Your task to perform on an android device: allow cookies in the chrome app Image 0: 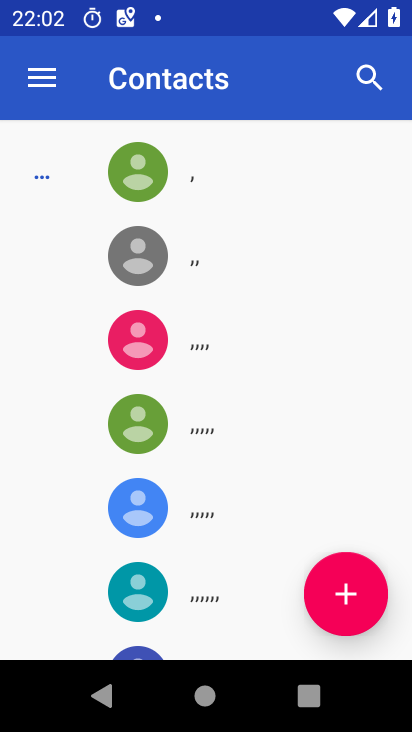
Step 0: press home button
Your task to perform on an android device: allow cookies in the chrome app Image 1: 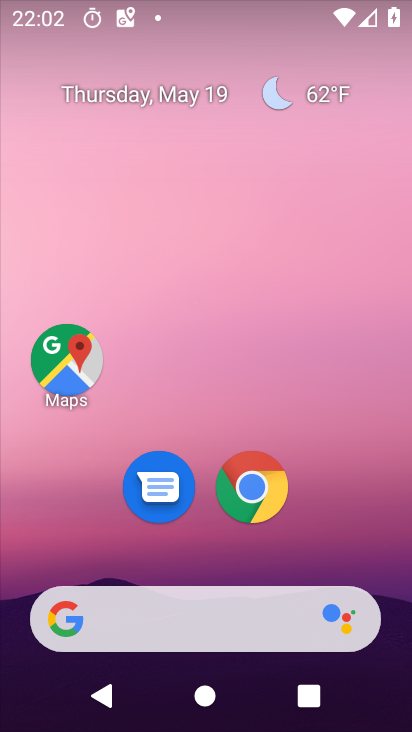
Step 1: click (250, 507)
Your task to perform on an android device: allow cookies in the chrome app Image 2: 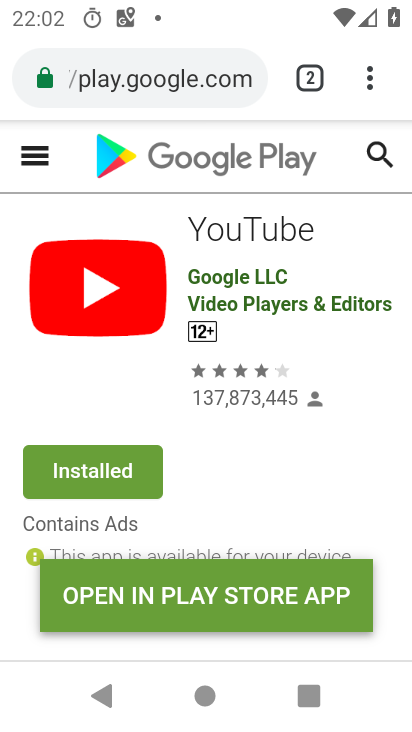
Step 2: click (376, 70)
Your task to perform on an android device: allow cookies in the chrome app Image 3: 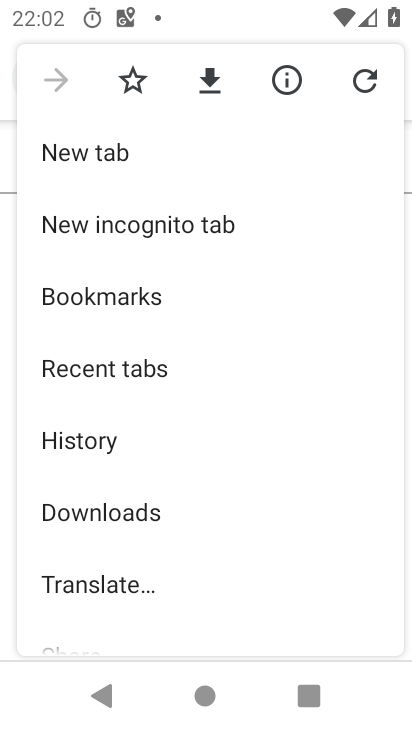
Step 3: drag from (214, 522) to (203, 230)
Your task to perform on an android device: allow cookies in the chrome app Image 4: 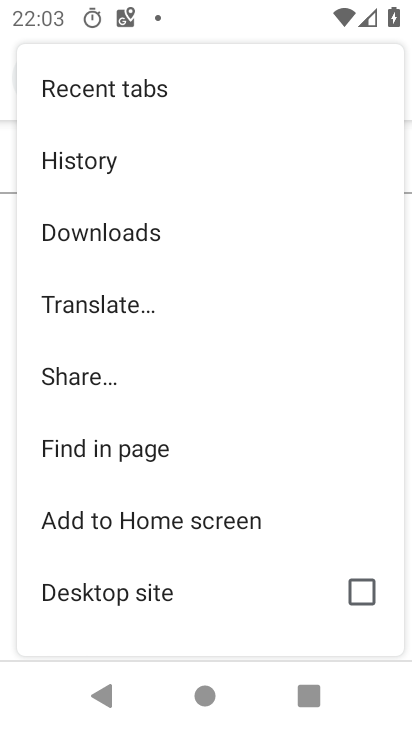
Step 4: drag from (250, 570) to (268, 268)
Your task to perform on an android device: allow cookies in the chrome app Image 5: 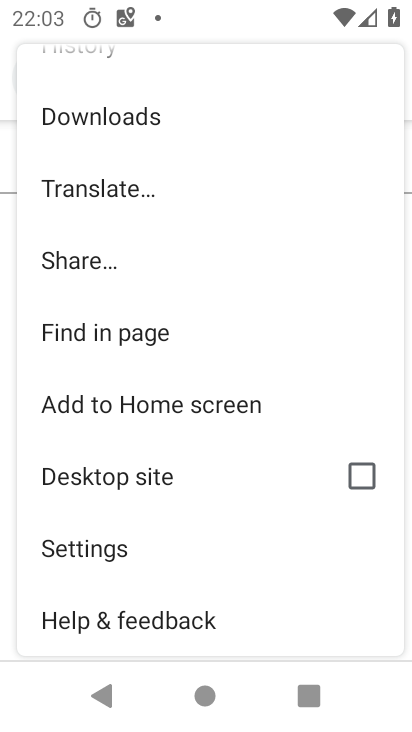
Step 5: click (100, 544)
Your task to perform on an android device: allow cookies in the chrome app Image 6: 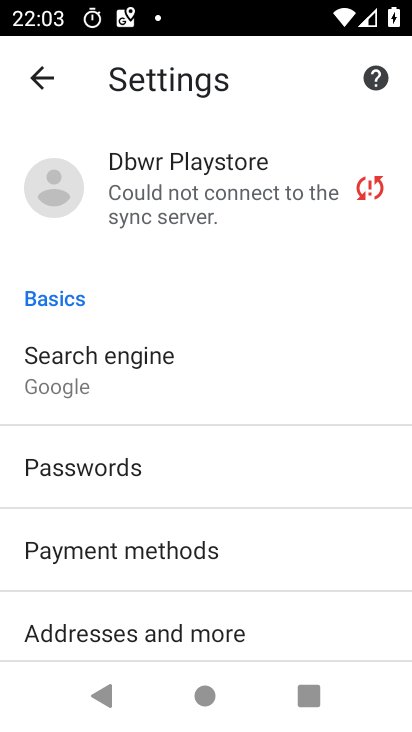
Step 6: drag from (227, 597) to (242, 141)
Your task to perform on an android device: allow cookies in the chrome app Image 7: 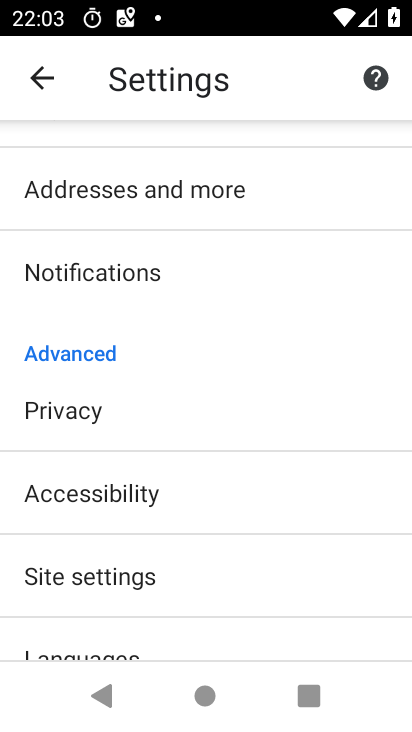
Step 7: drag from (281, 595) to (233, 203)
Your task to perform on an android device: allow cookies in the chrome app Image 8: 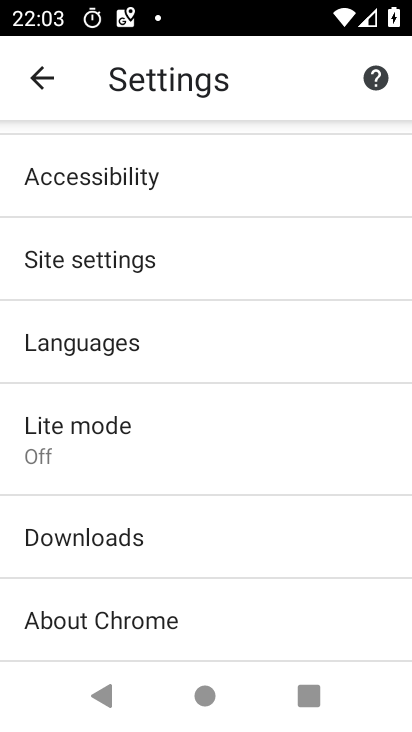
Step 8: click (189, 278)
Your task to perform on an android device: allow cookies in the chrome app Image 9: 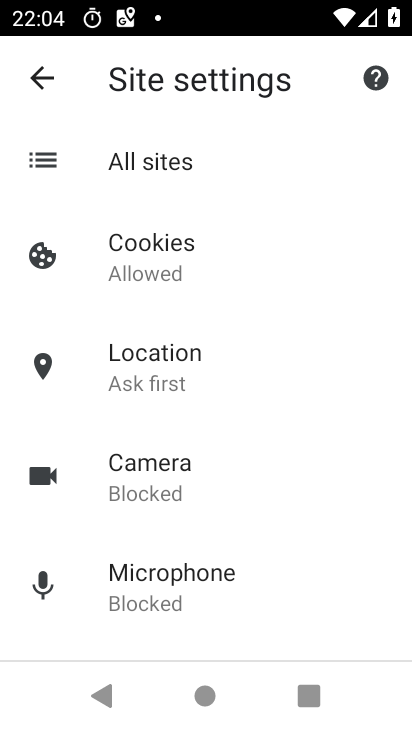
Step 9: click (179, 272)
Your task to perform on an android device: allow cookies in the chrome app Image 10: 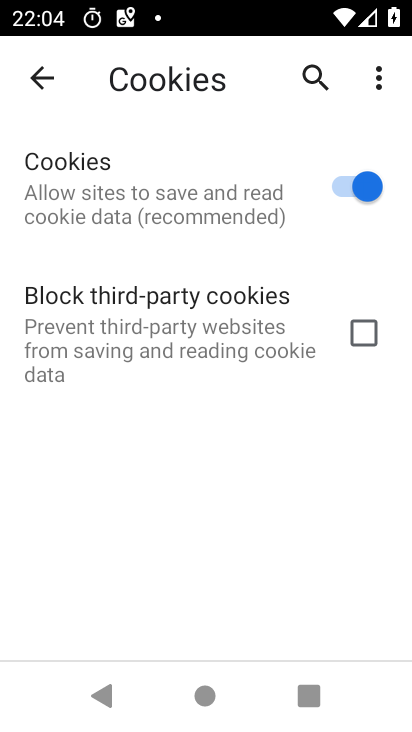
Step 10: task complete